Your task to perform on an android device: When is my next meeting? Image 0: 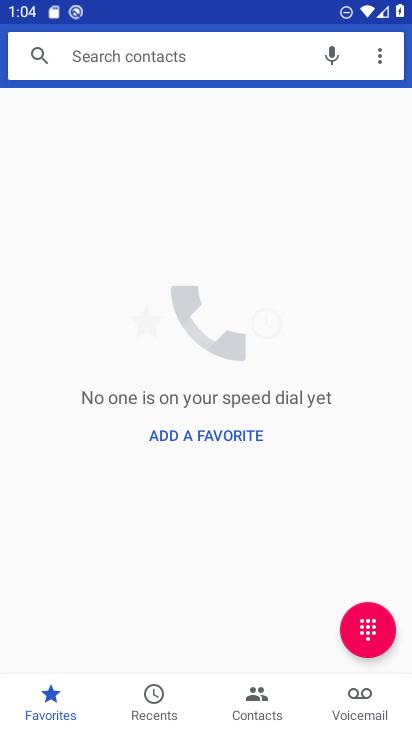
Step 0: press home button
Your task to perform on an android device: When is my next meeting? Image 1: 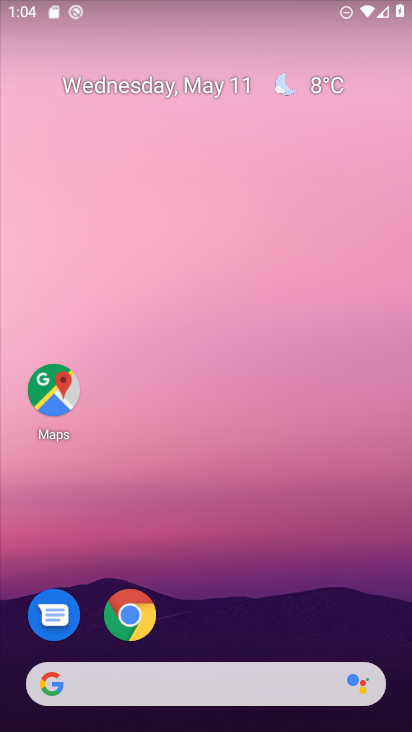
Step 1: drag from (272, 380) to (255, 286)
Your task to perform on an android device: When is my next meeting? Image 2: 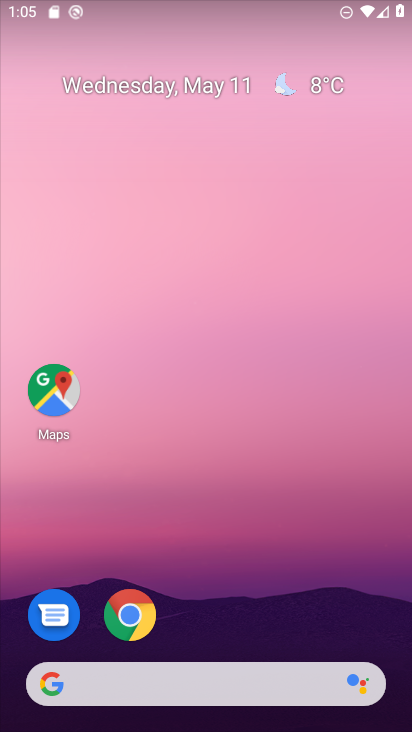
Step 2: drag from (270, 474) to (266, 75)
Your task to perform on an android device: When is my next meeting? Image 3: 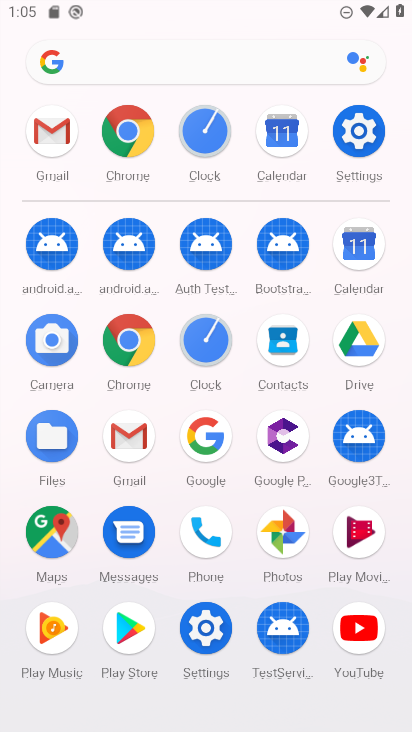
Step 3: click (342, 262)
Your task to perform on an android device: When is my next meeting? Image 4: 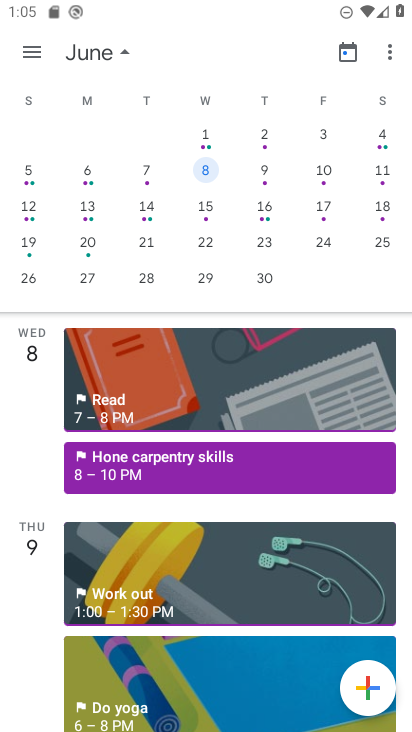
Step 4: task complete